Your task to perform on an android device: Add "usb-c" to the cart on target.com, then select checkout. Image 0: 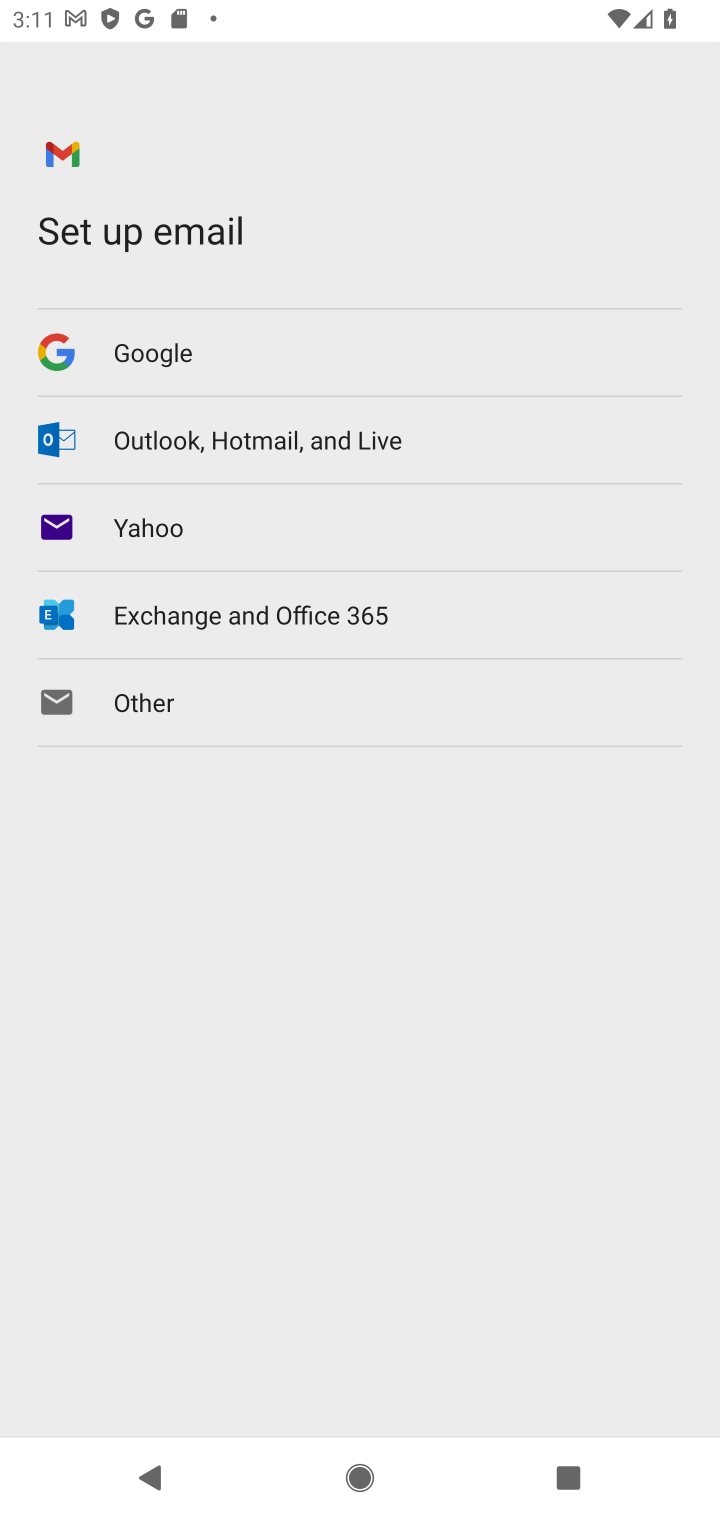
Step 0: press home button
Your task to perform on an android device: Add "usb-c" to the cart on target.com, then select checkout. Image 1: 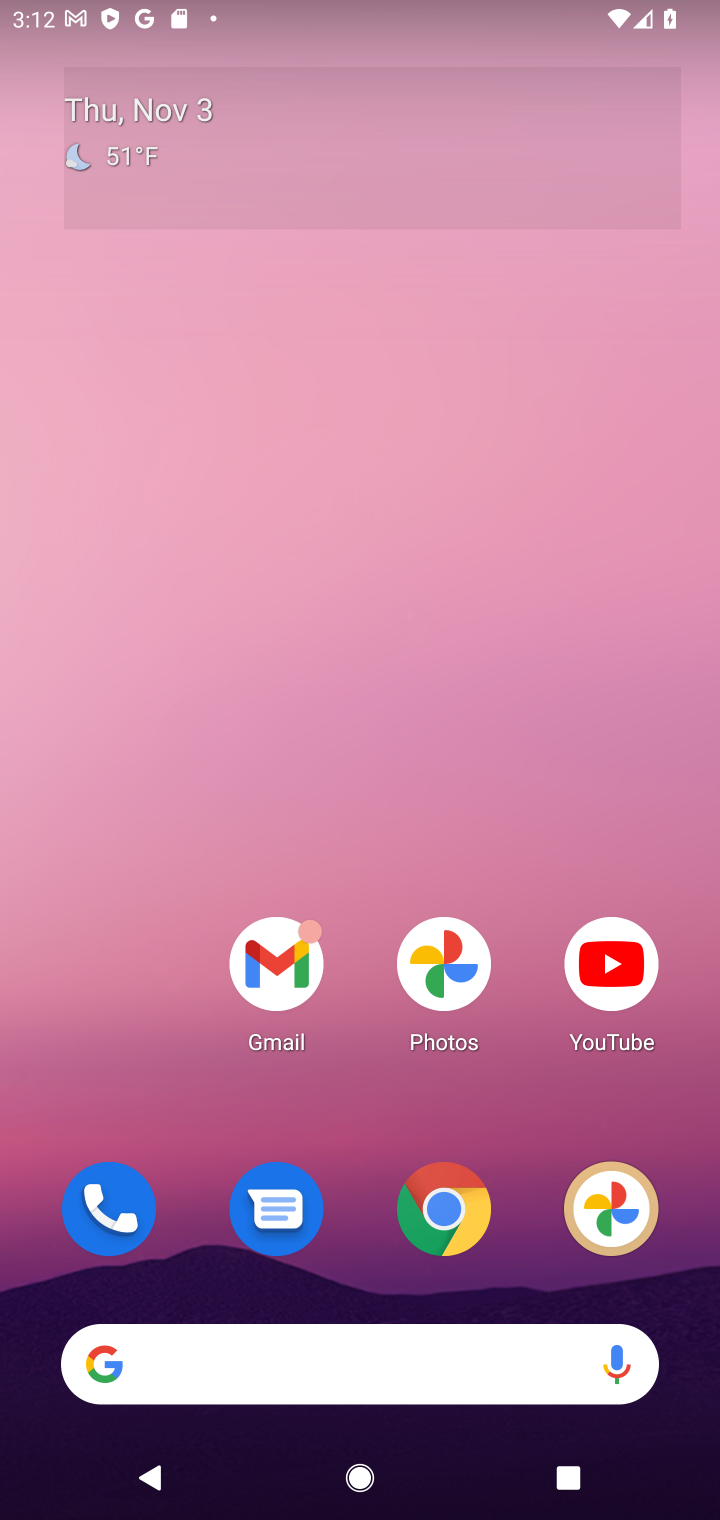
Step 1: click (453, 1207)
Your task to perform on an android device: Add "usb-c" to the cart on target.com, then select checkout. Image 2: 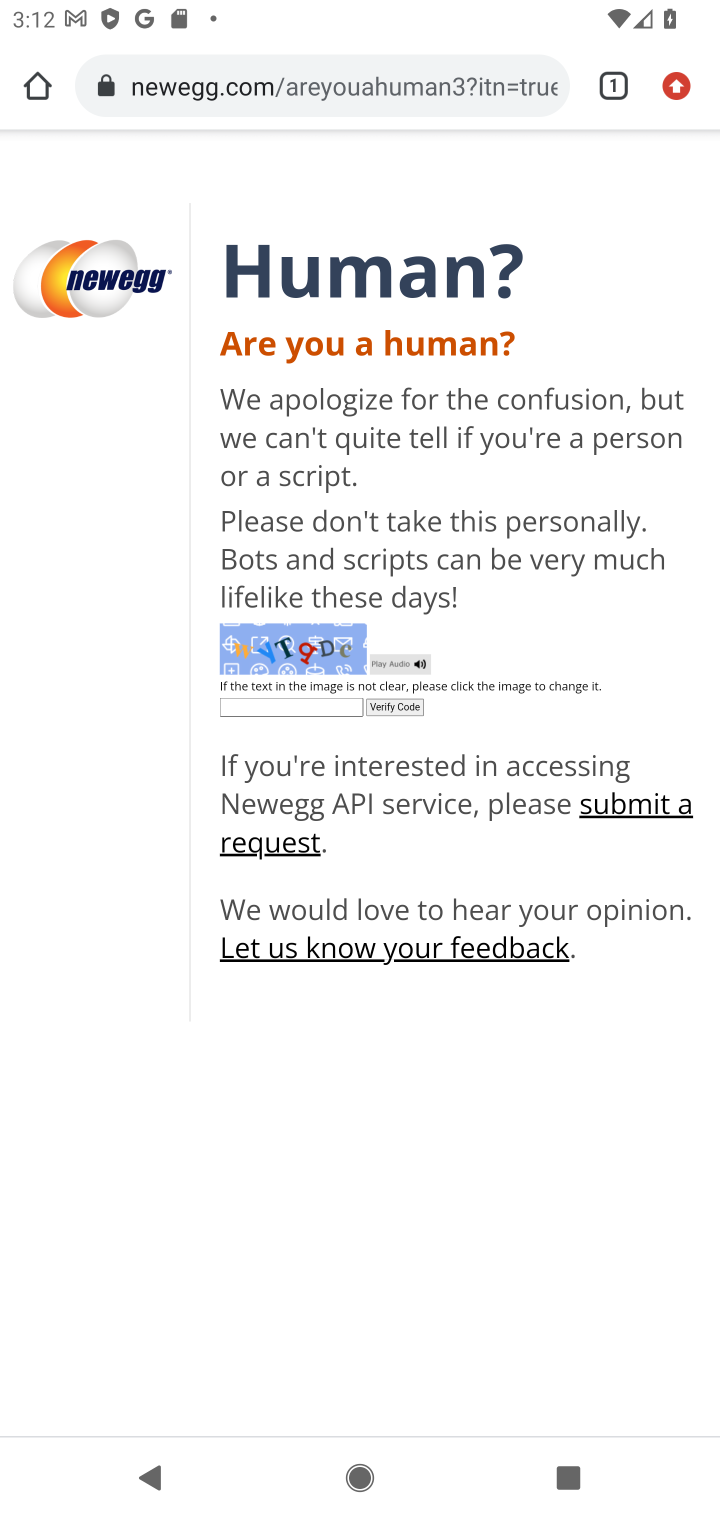
Step 2: click (388, 79)
Your task to perform on an android device: Add "usb-c" to the cart on target.com, then select checkout. Image 3: 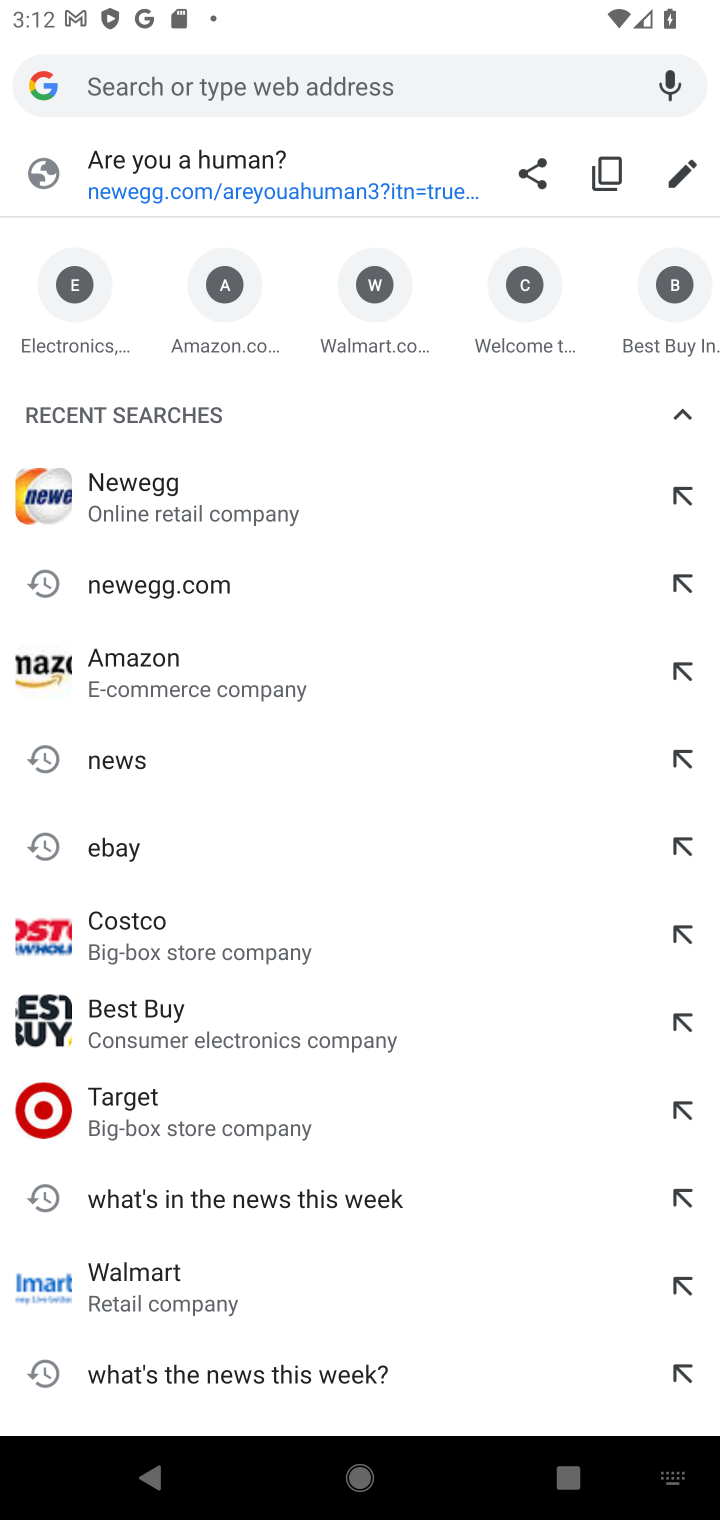
Step 3: type "target.com"
Your task to perform on an android device: Add "usb-c" to the cart on target.com, then select checkout. Image 4: 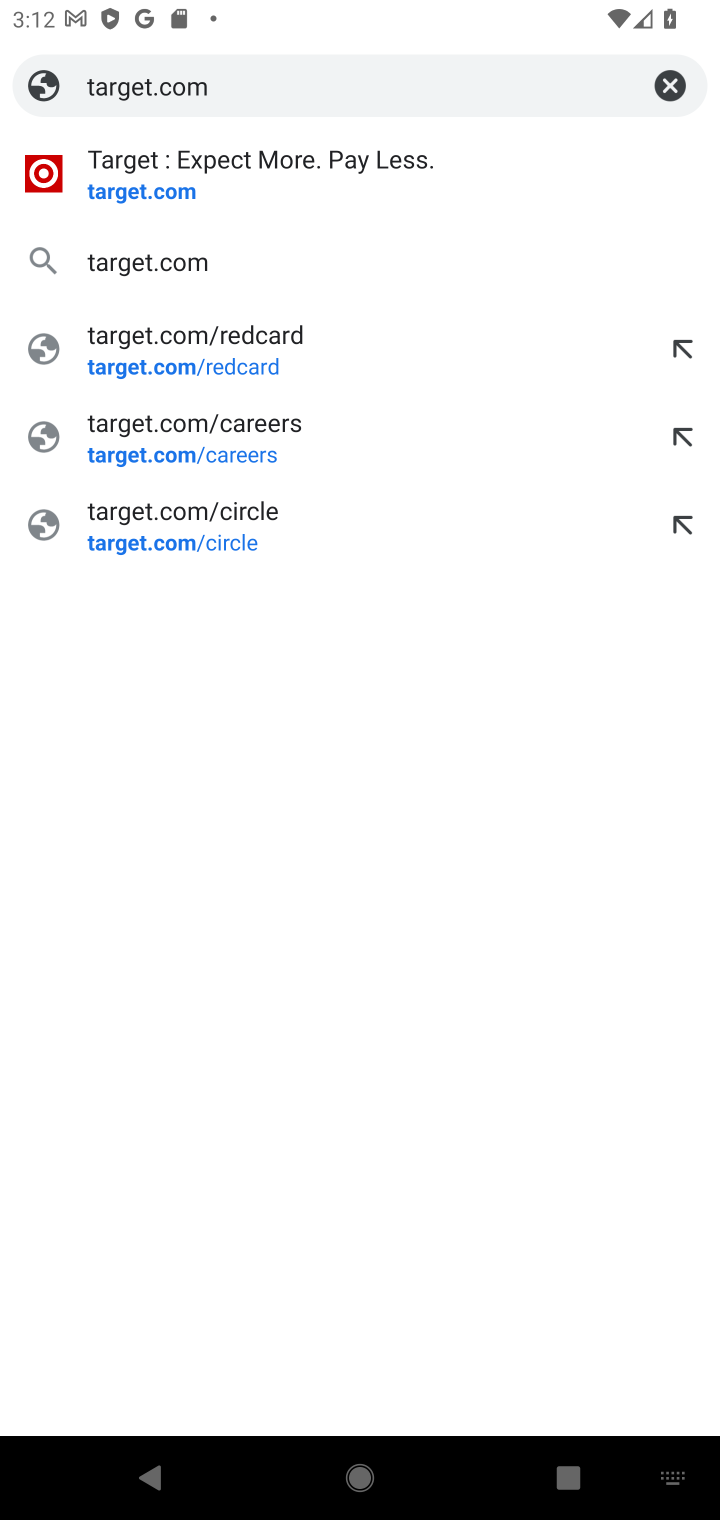
Step 4: click (219, 159)
Your task to perform on an android device: Add "usb-c" to the cart on target.com, then select checkout. Image 5: 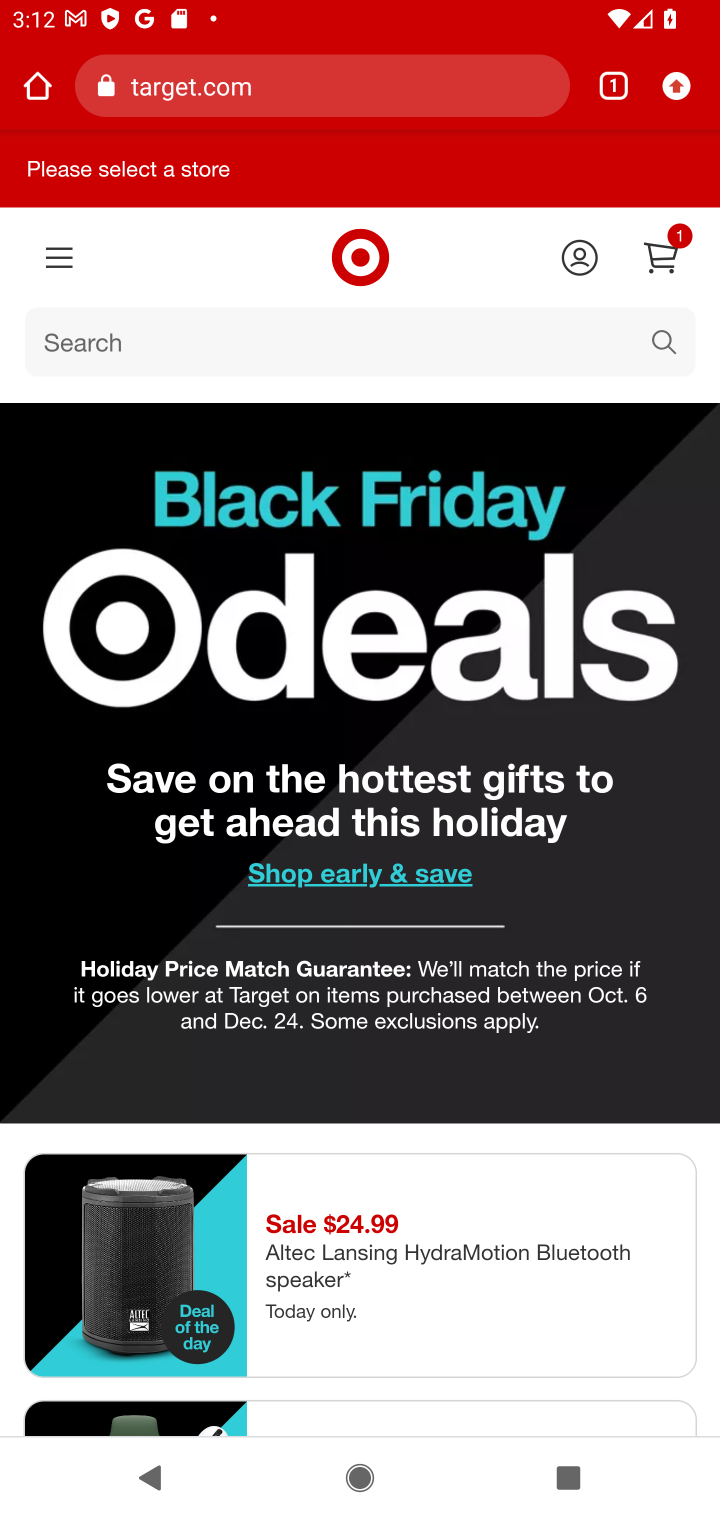
Step 5: click (255, 323)
Your task to perform on an android device: Add "usb-c" to the cart on target.com, then select checkout. Image 6: 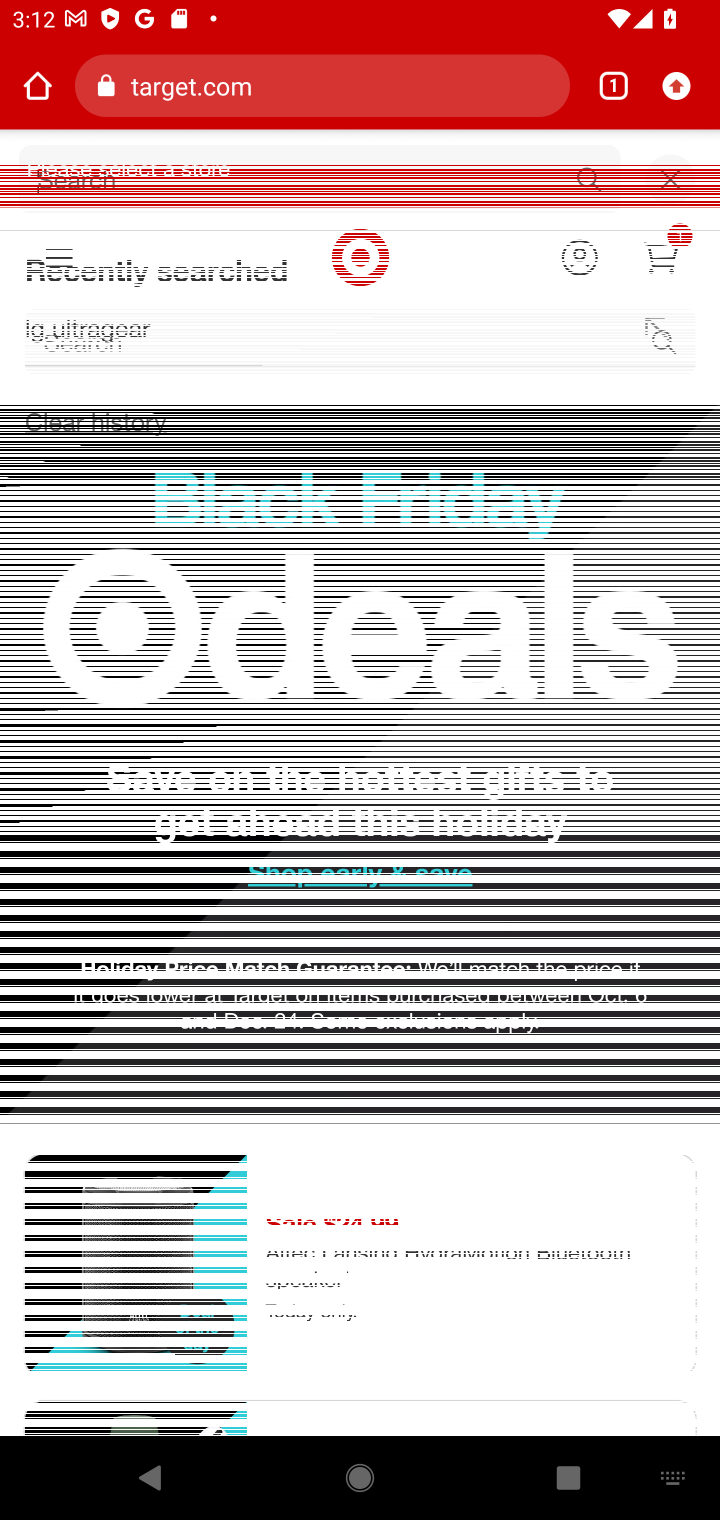
Step 6: type "usb-c"
Your task to perform on an android device: Add "usb-c" to the cart on target.com, then select checkout. Image 7: 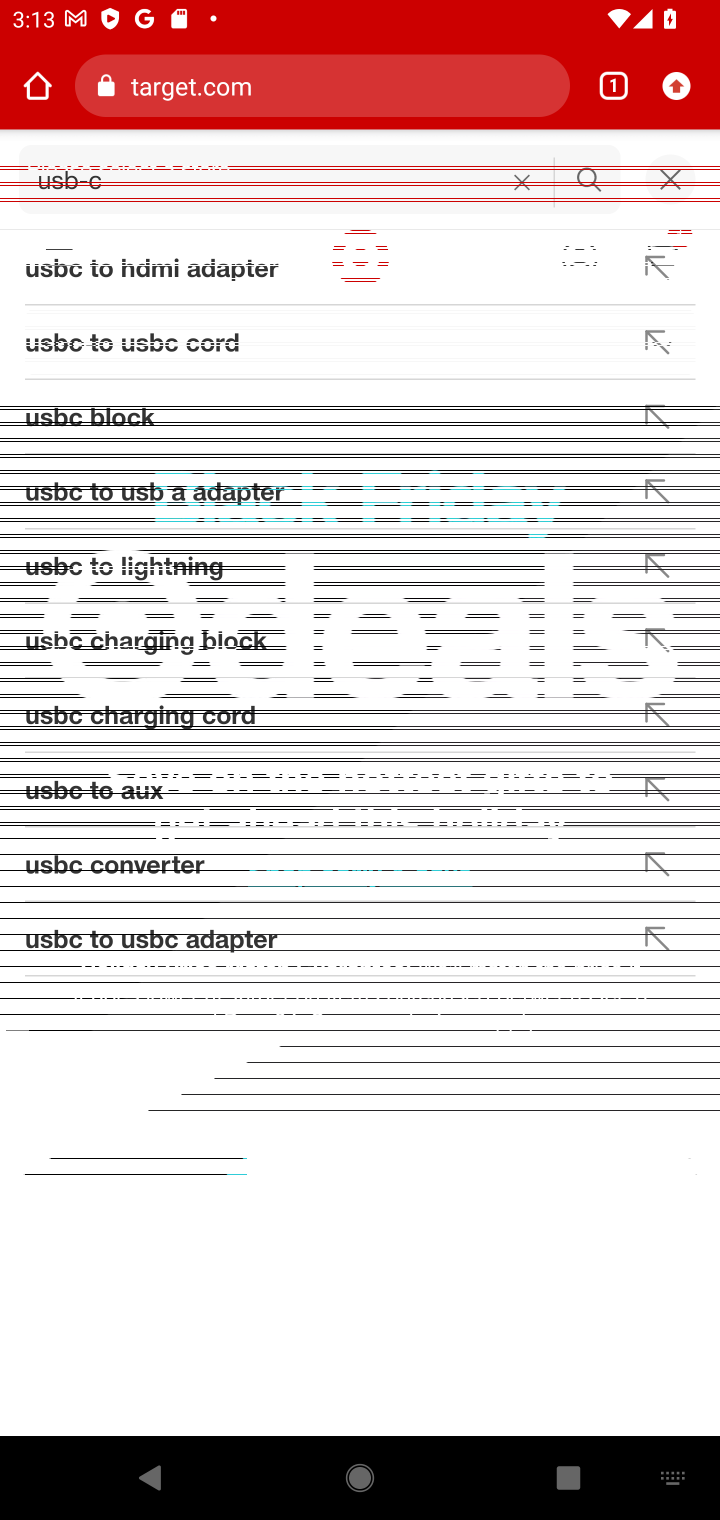
Step 7: press enter
Your task to perform on an android device: Add "usb-c" to the cart on target.com, then select checkout. Image 8: 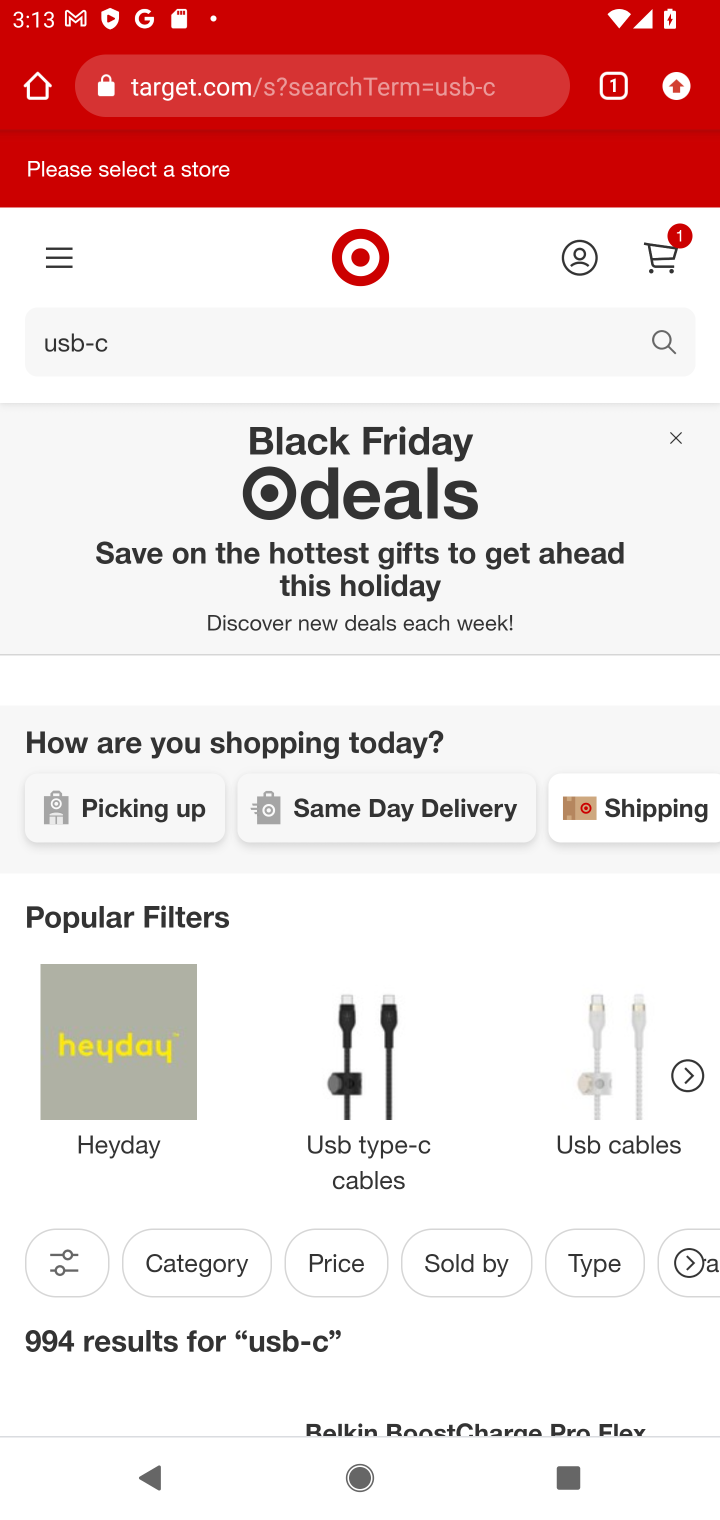
Step 8: drag from (363, 1300) to (362, 644)
Your task to perform on an android device: Add "usb-c" to the cart on target.com, then select checkout. Image 9: 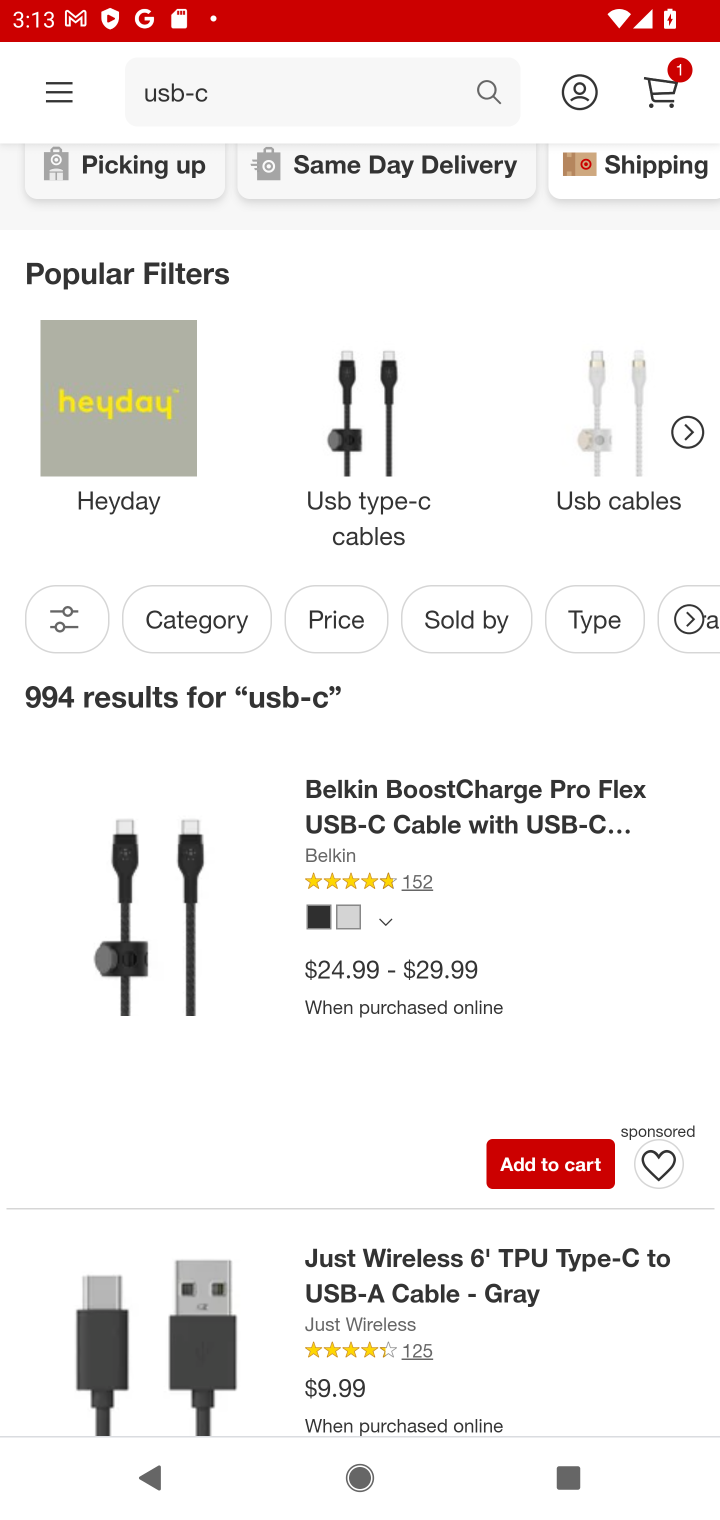
Step 9: click (147, 1029)
Your task to perform on an android device: Add "usb-c" to the cart on target.com, then select checkout. Image 10: 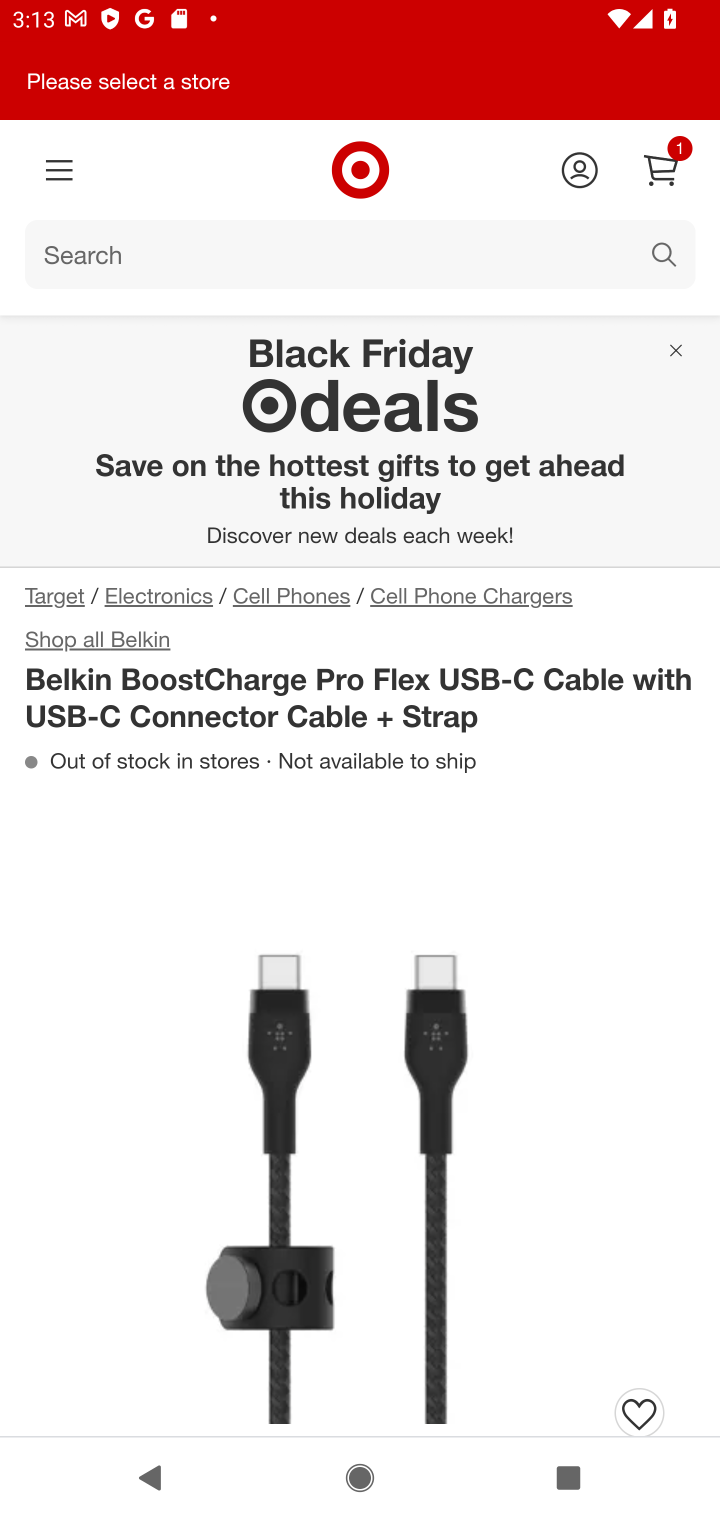
Step 10: drag from (489, 1171) to (422, 426)
Your task to perform on an android device: Add "usb-c" to the cart on target.com, then select checkout. Image 11: 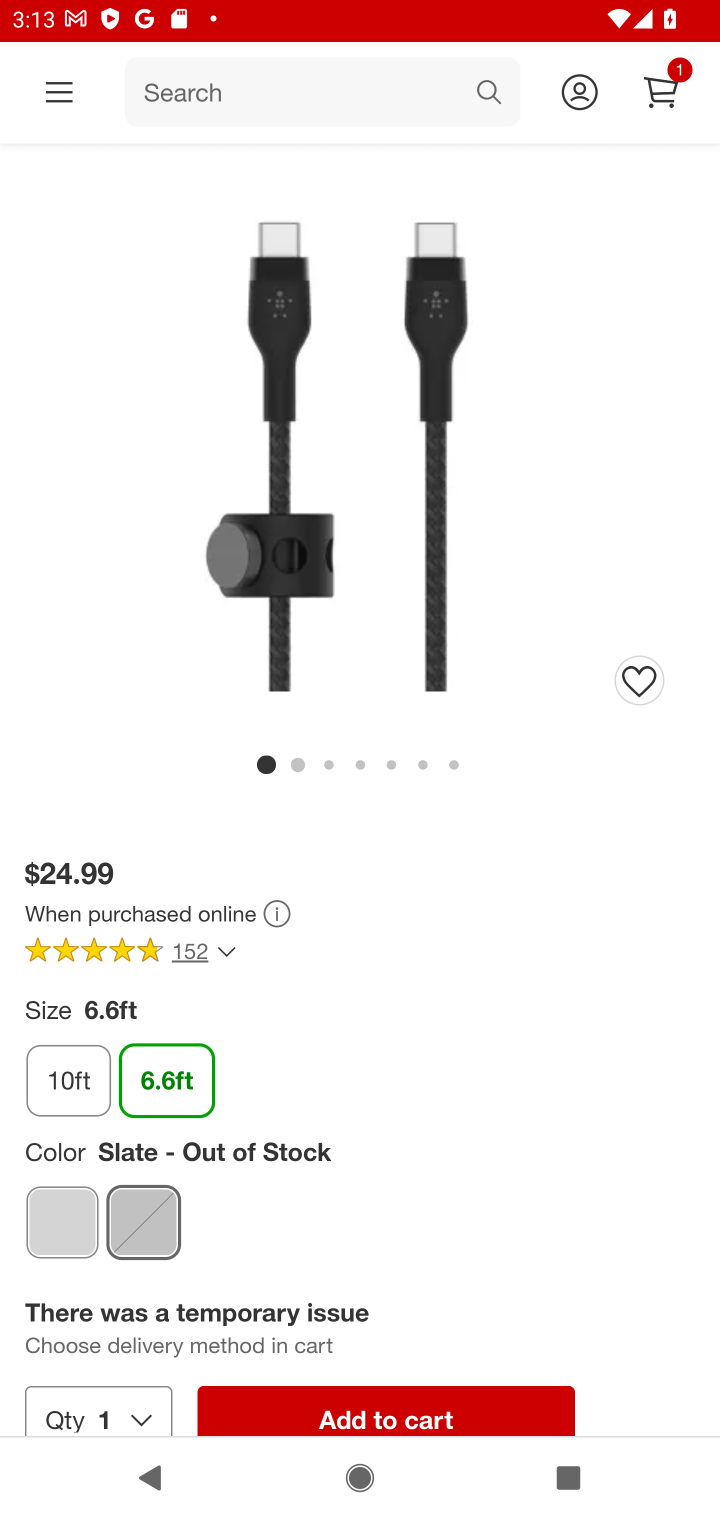
Step 11: click (444, 1409)
Your task to perform on an android device: Add "usb-c" to the cart on target.com, then select checkout. Image 12: 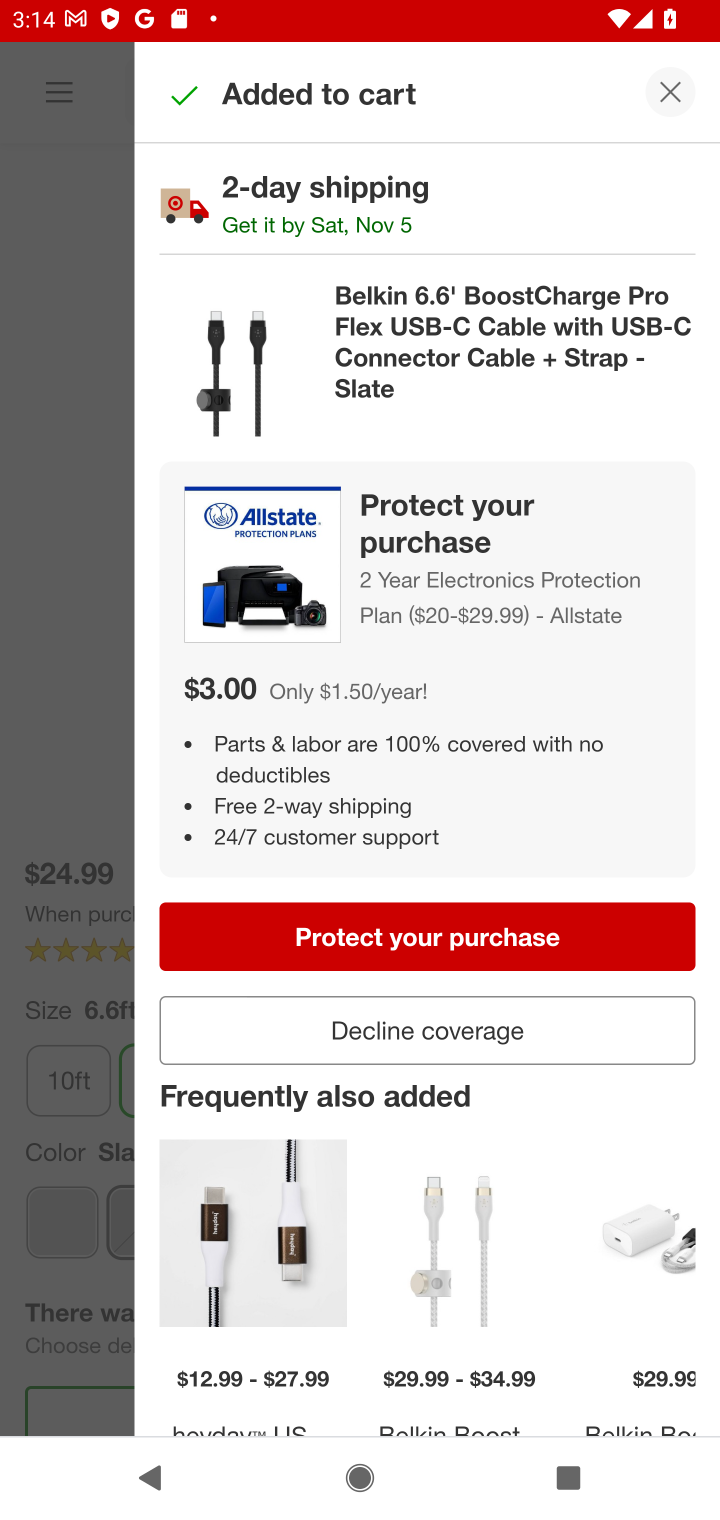
Step 12: click (657, 91)
Your task to perform on an android device: Add "usb-c" to the cart on target.com, then select checkout. Image 13: 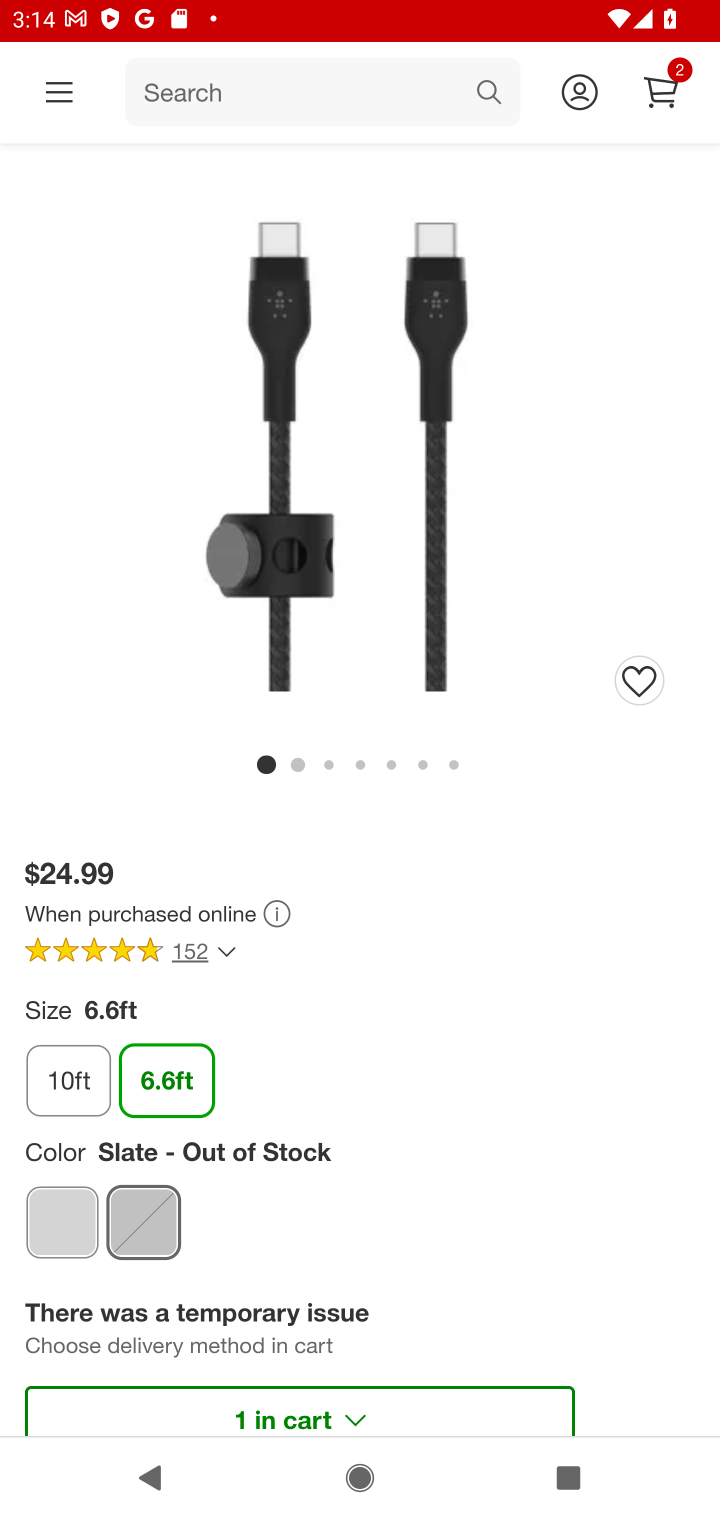
Step 13: click (677, 76)
Your task to perform on an android device: Add "usb-c" to the cart on target.com, then select checkout. Image 14: 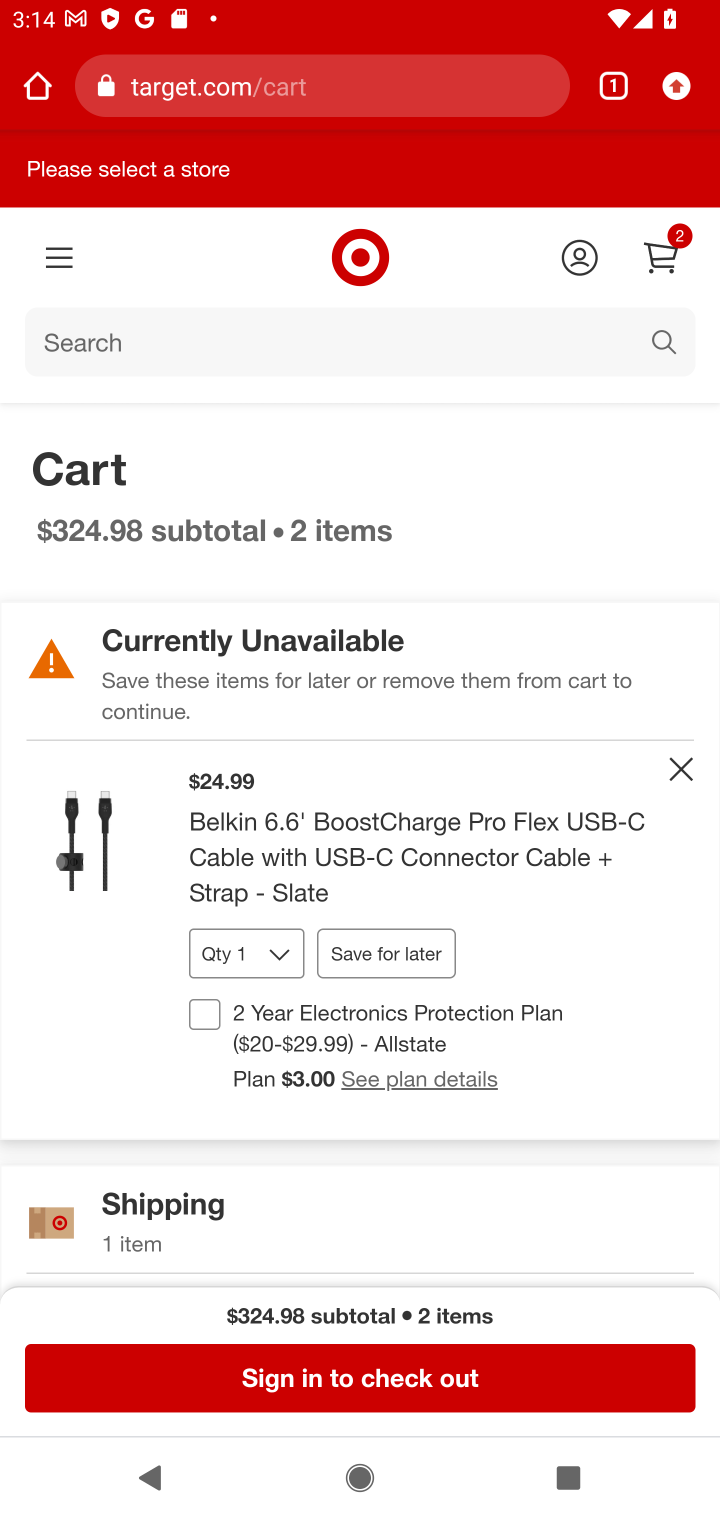
Step 14: task complete